Your task to perform on an android device: Open display settings Image 0: 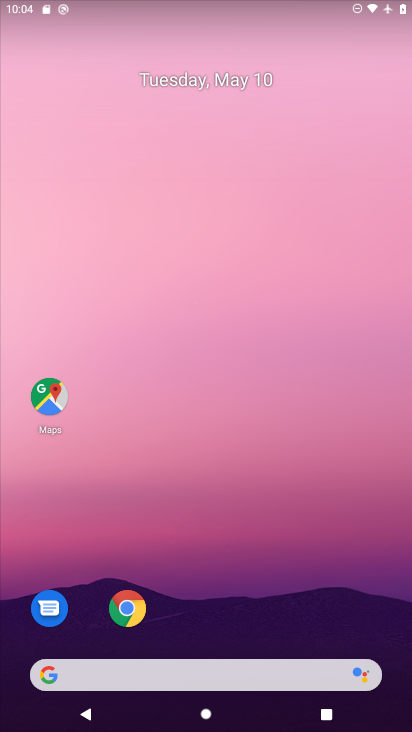
Step 0: drag from (256, 623) to (256, 570)
Your task to perform on an android device: Open display settings Image 1: 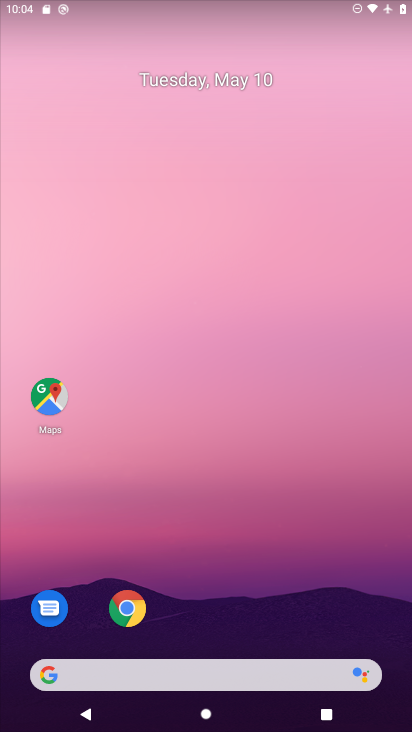
Step 1: drag from (219, 610) to (231, 276)
Your task to perform on an android device: Open display settings Image 2: 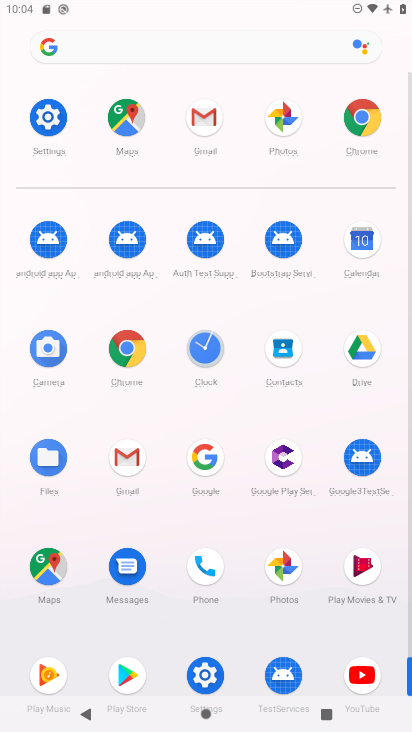
Step 2: click (42, 104)
Your task to perform on an android device: Open display settings Image 3: 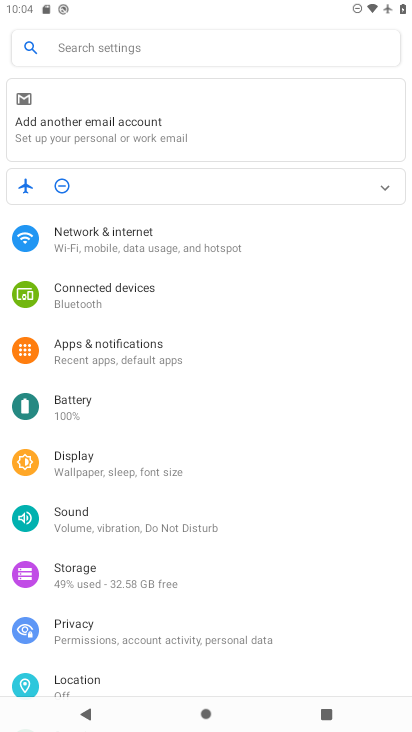
Step 3: click (111, 461)
Your task to perform on an android device: Open display settings Image 4: 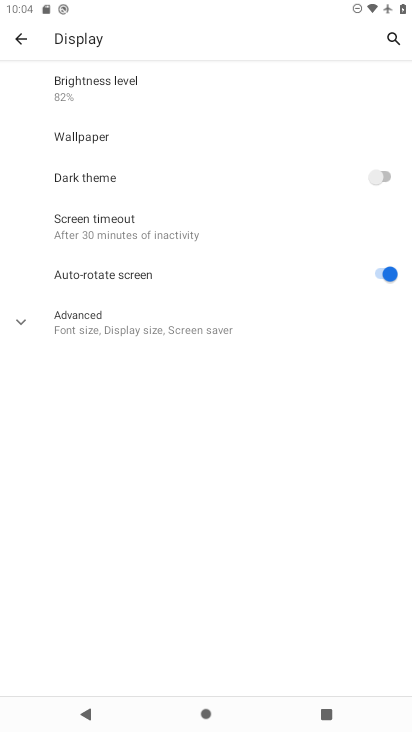
Step 4: task complete